Your task to perform on an android device: turn on wifi Image 0: 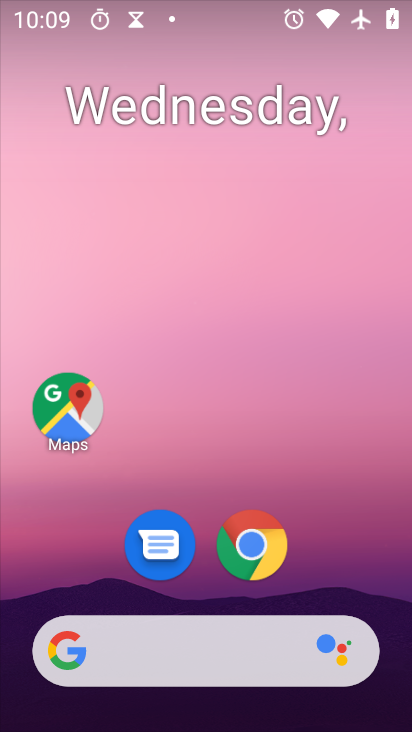
Step 0: press home button
Your task to perform on an android device: turn on wifi Image 1: 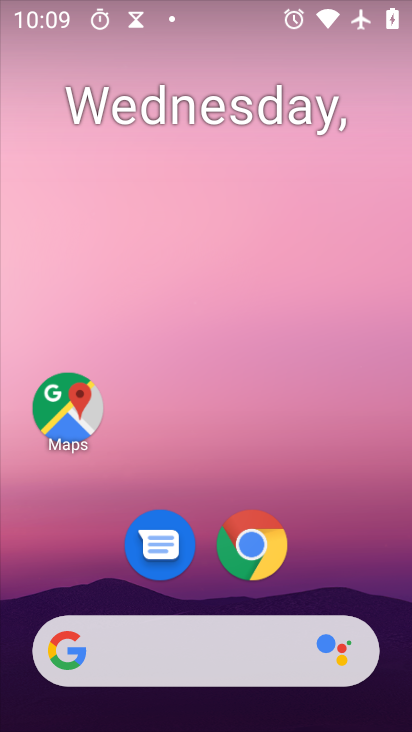
Step 1: drag from (177, 652) to (339, 17)
Your task to perform on an android device: turn on wifi Image 2: 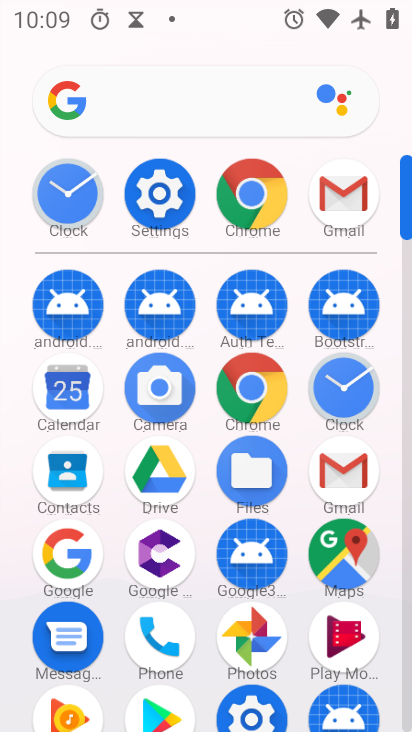
Step 2: click (161, 200)
Your task to perform on an android device: turn on wifi Image 3: 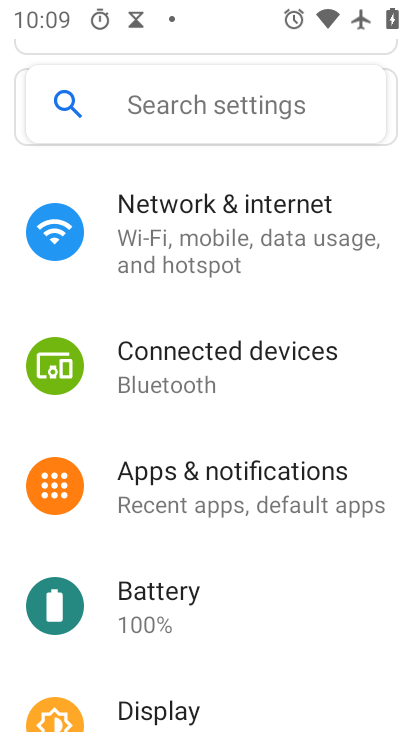
Step 3: click (239, 224)
Your task to perform on an android device: turn on wifi Image 4: 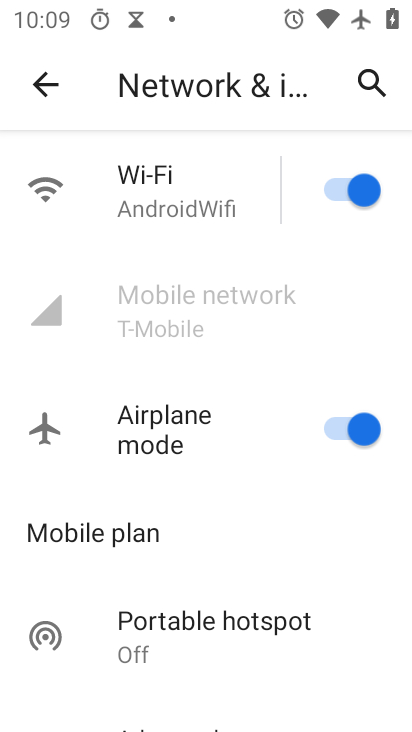
Step 4: task complete